Your task to perform on an android device: toggle translation in the chrome app Image 0: 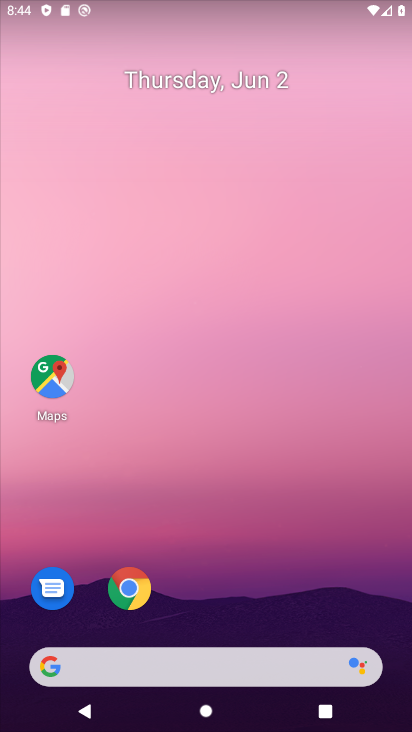
Step 0: click (124, 589)
Your task to perform on an android device: toggle translation in the chrome app Image 1: 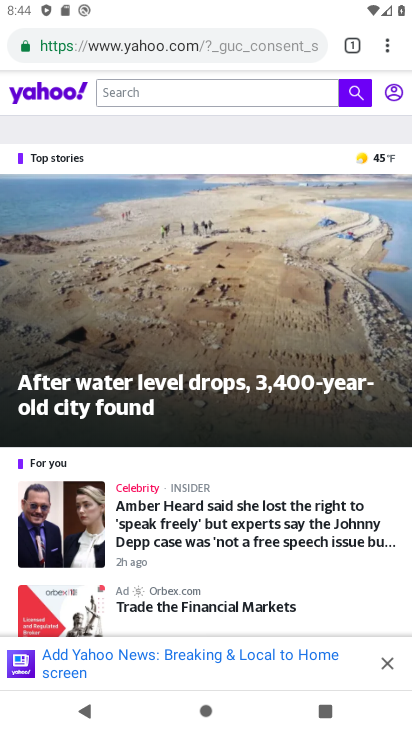
Step 1: click (390, 47)
Your task to perform on an android device: toggle translation in the chrome app Image 2: 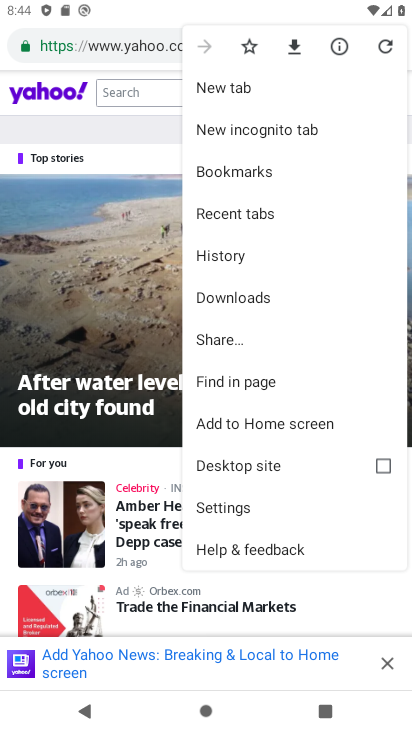
Step 2: click (266, 499)
Your task to perform on an android device: toggle translation in the chrome app Image 3: 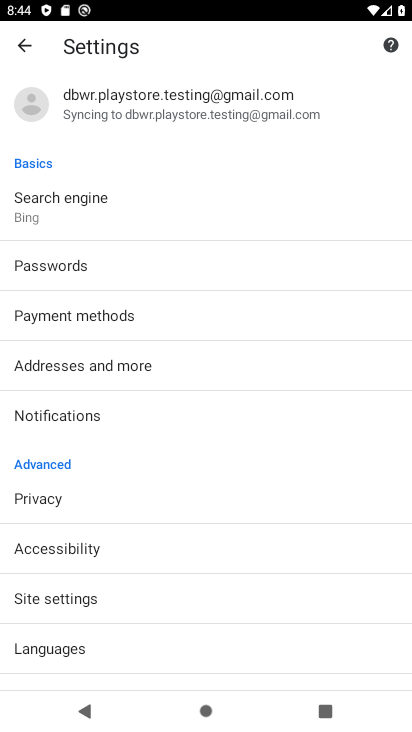
Step 3: click (106, 635)
Your task to perform on an android device: toggle translation in the chrome app Image 4: 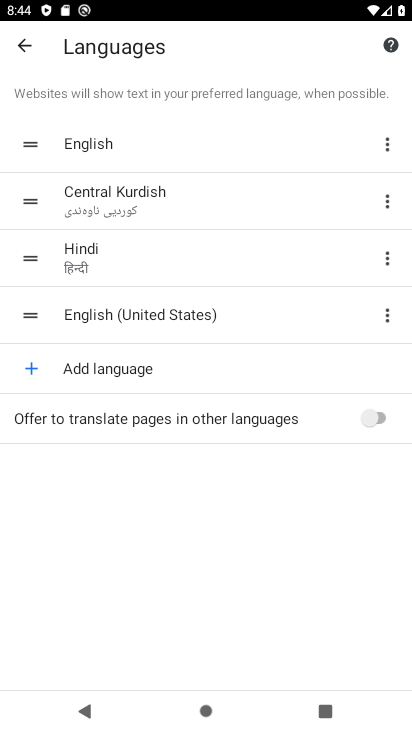
Step 4: click (364, 423)
Your task to perform on an android device: toggle translation in the chrome app Image 5: 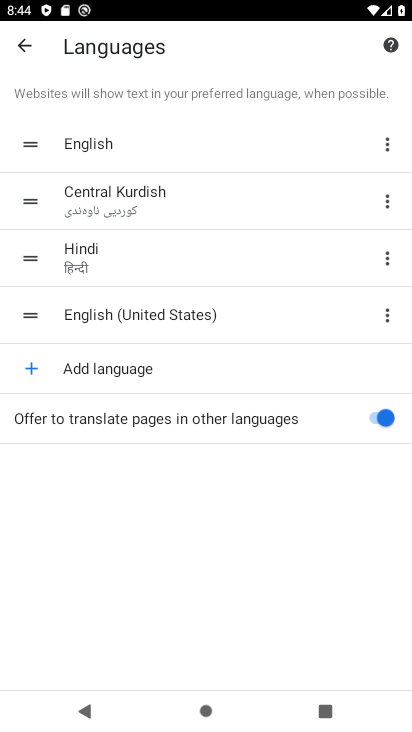
Step 5: task complete